Your task to perform on an android device: Go to display settings Image 0: 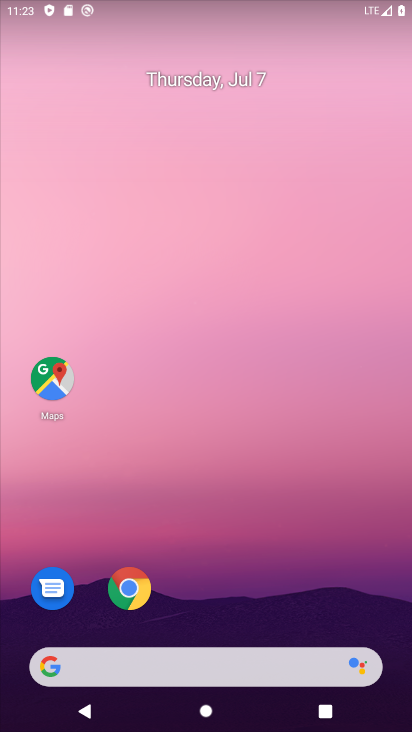
Step 0: drag from (295, 550) to (257, 83)
Your task to perform on an android device: Go to display settings Image 1: 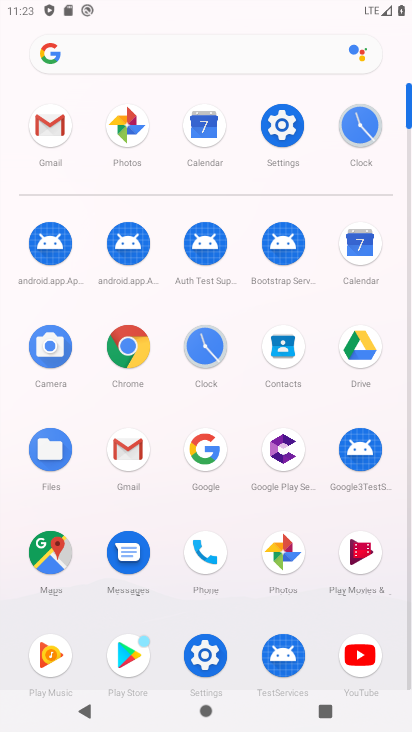
Step 1: click (282, 114)
Your task to perform on an android device: Go to display settings Image 2: 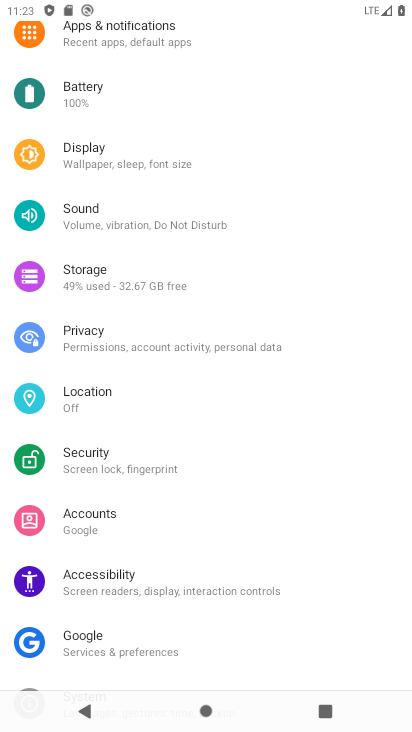
Step 2: click (124, 149)
Your task to perform on an android device: Go to display settings Image 3: 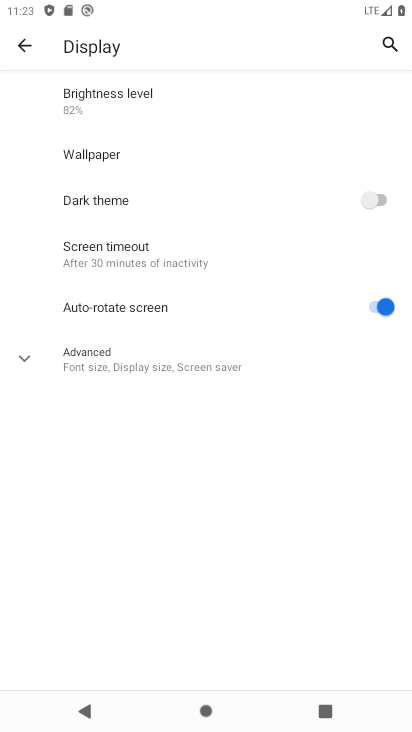
Step 3: task complete